Your task to perform on an android device: Open maps Image 0: 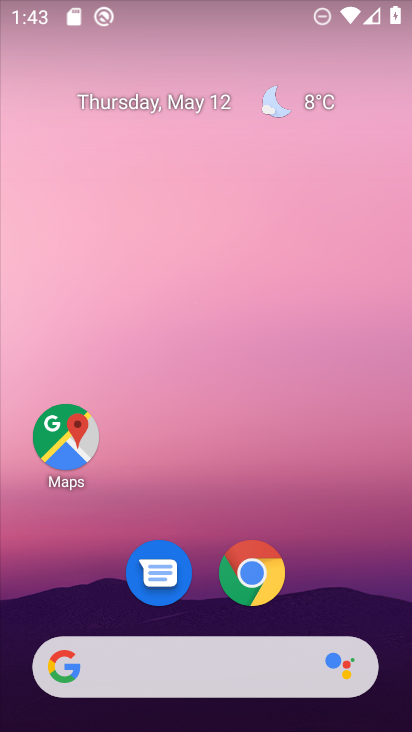
Step 0: drag from (361, 585) to (182, 92)
Your task to perform on an android device: Open maps Image 1: 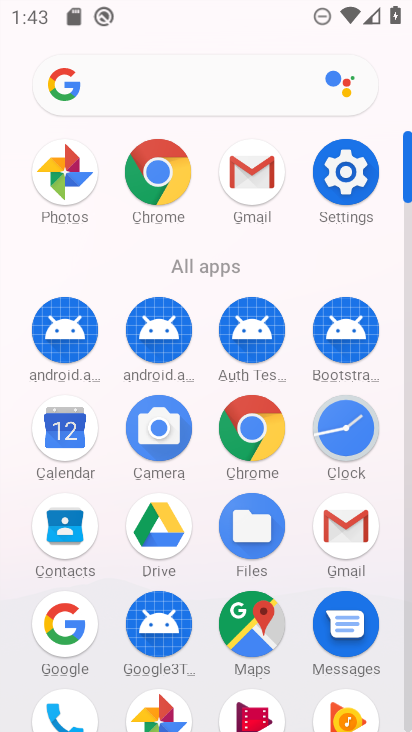
Step 1: click (251, 616)
Your task to perform on an android device: Open maps Image 2: 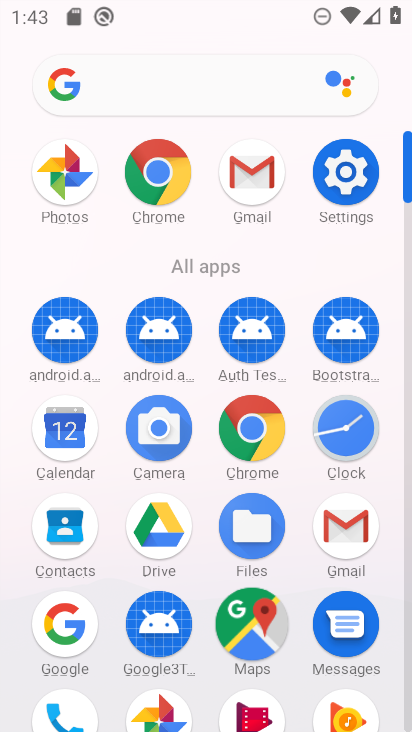
Step 2: click (248, 611)
Your task to perform on an android device: Open maps Image 3: 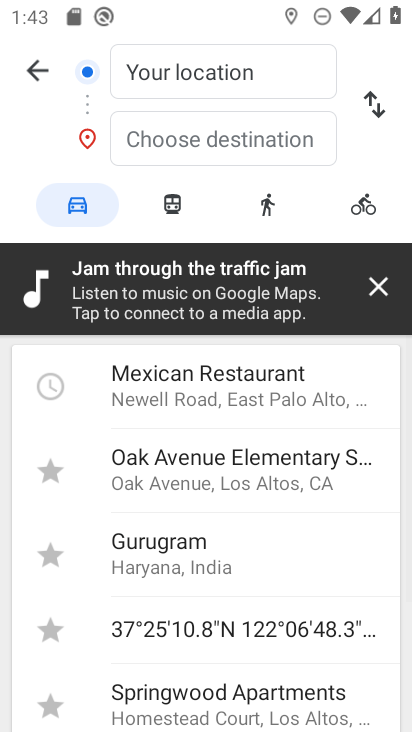
Step 3: click (378, 277)
Your task to perform on an android device: Open maps Image 4: 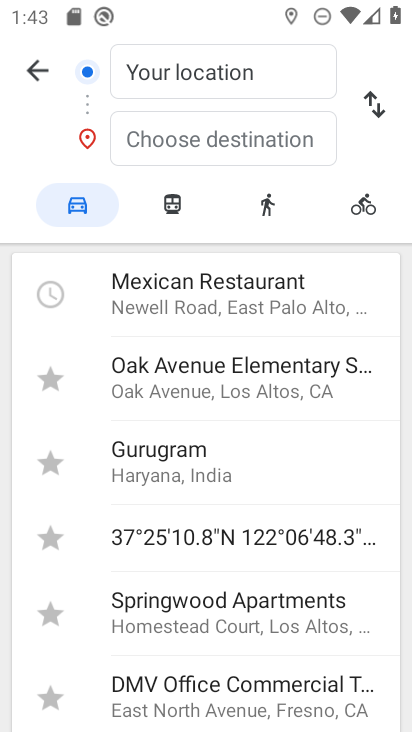
Step 4: click (37, 61)
Your task to perform on an android device: Open maps Image 5: 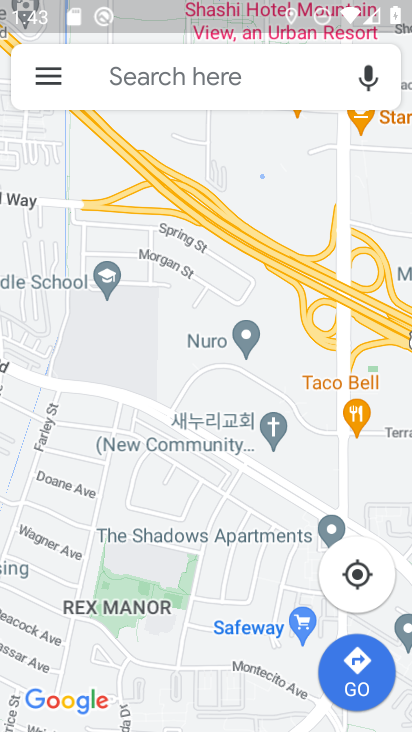
Step 5: task complete